Your task to perform on an android device: turn on priority inbox in the gmail app Image 0: 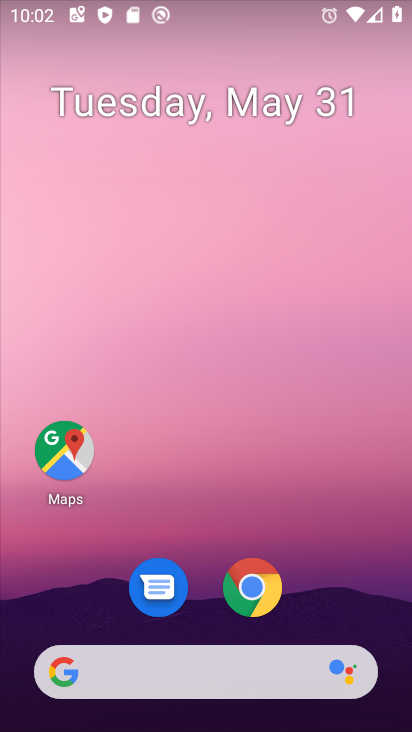
Step 0: drag from (386, 627) to (384, 266)
Your task to perform on an android device: turn on priority inbox in the gmail app Image 1: 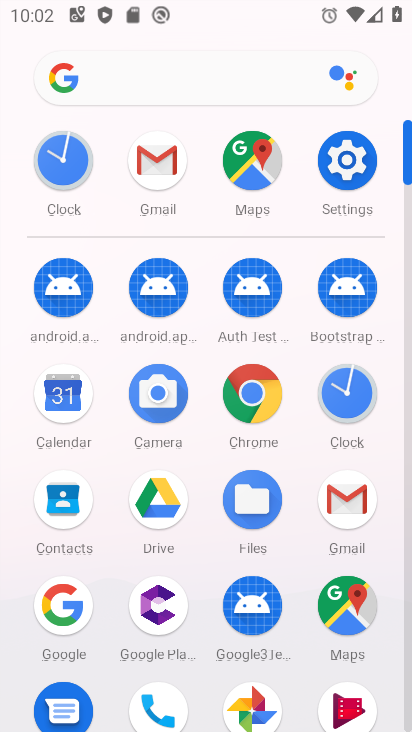
Step 1: click (352, 509)
Your task to perform on an android device: turn on priority inbox in the gmail app Image 2: 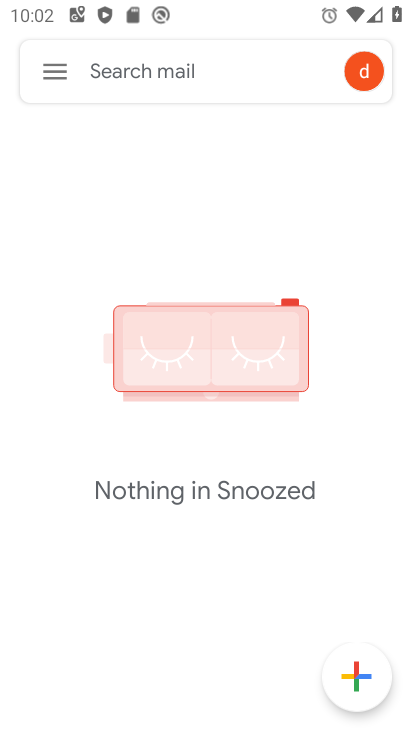
Step 2: click (61, 76)
Your task to perform on an android device: turn on priority inbox in the gmail app Image 3: 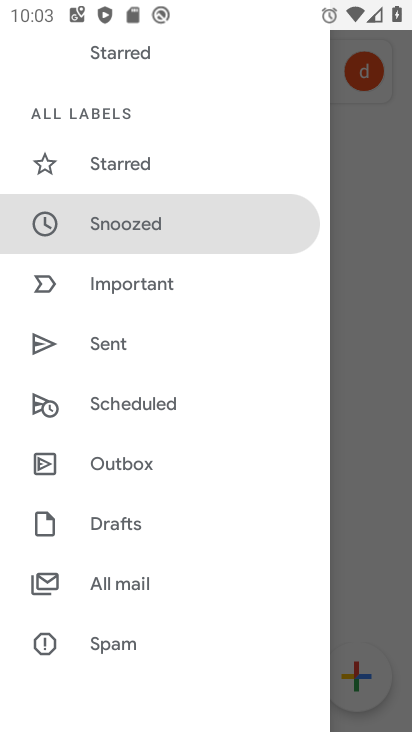
Step 3: drag from (238, 498) to (252, 438)
Your task to perform on an android device: turn on priority inbox in the gmail app Image 4: 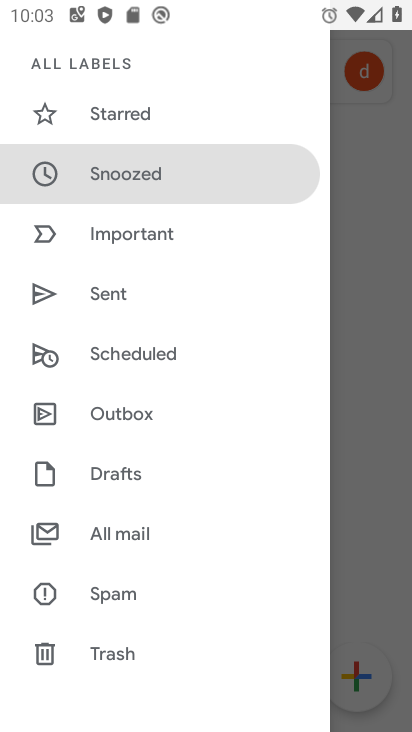
Step 4: drag from (250, 512) to (264, 443)
Your task to perform on an android device: turn on priority inbox in the gmail app Image 5: 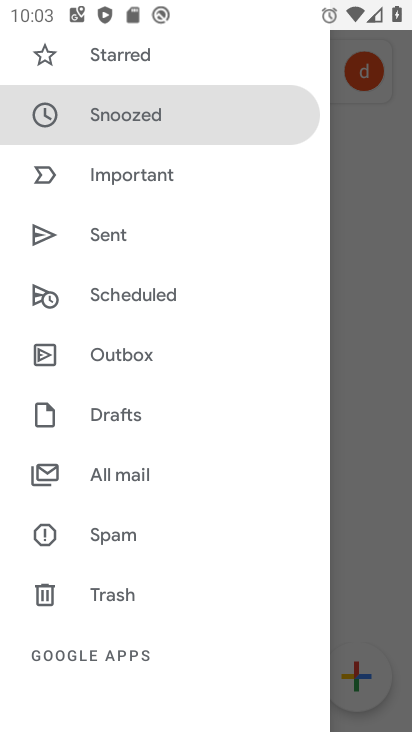
Step 5: drag from (247, 523) to (240, 446)
Your task to perform on an android device: turn on priority inbox in the gmail app Image 6: 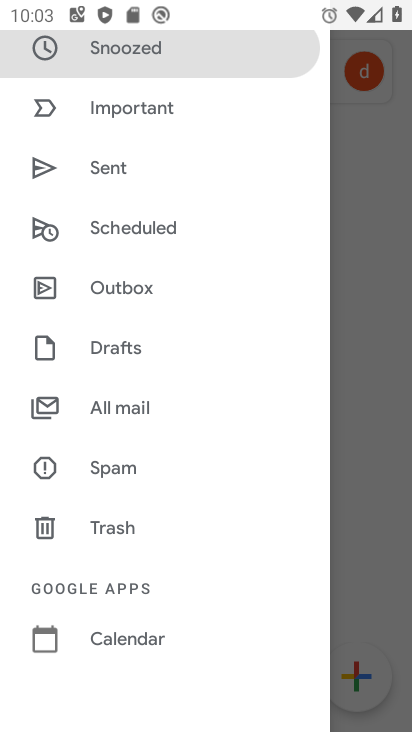
Step 6: drag from (222, 526) to (234, 445)
Your task to perform on an android device: turn on priority inbox in the gmail app Image 7: 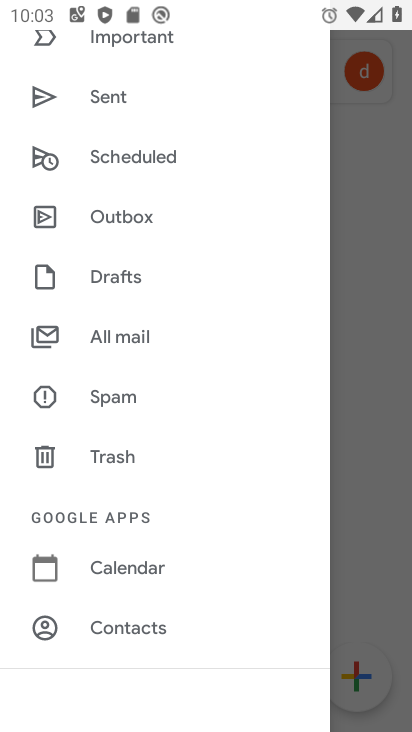
Step 7: drag from (221, 539) to (229, 425)
Your task to perform on an android device: turn on priority inbox in the gmail app Image 8: 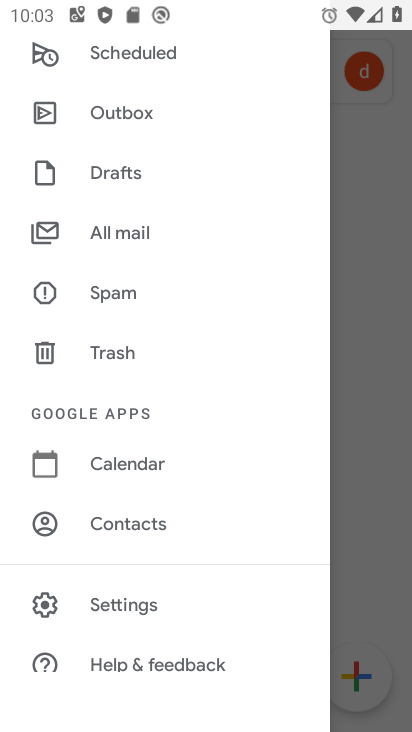
Step 8: drag from (243, 559) to (254, 419)
Your task to perform on an android device: turn on priority inbox in the gmail app Image 9: 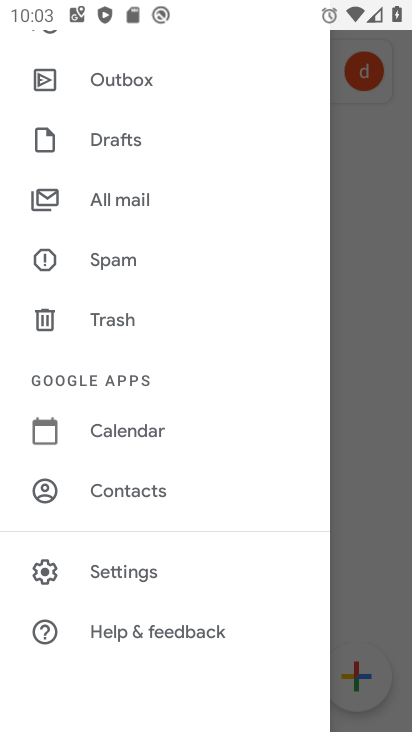
Step 9: click (161, 572)
Your task to perform on an android device: turn on priority inbox in the gmail app Image 10: 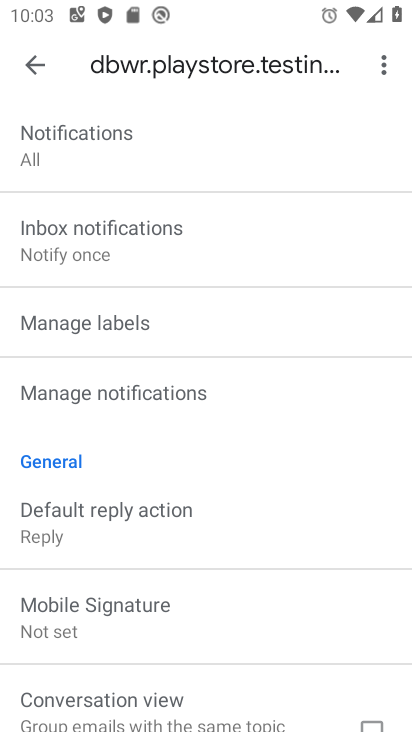
Step 10: drag from (274, 258) to (284, 426)
Your task to perform on an android device: turn on priority inbox in the gmail app Image 11: 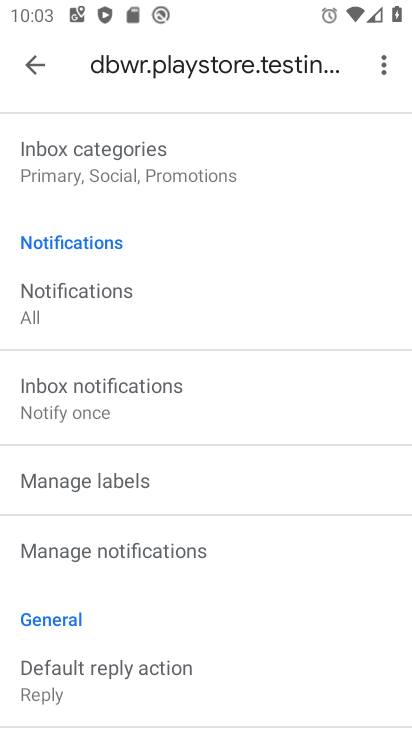
Step 11: drag from (312, 243) to (310, 402)
Your task to perform on an android device: turn on priority inbox in the gmail app Image 12: 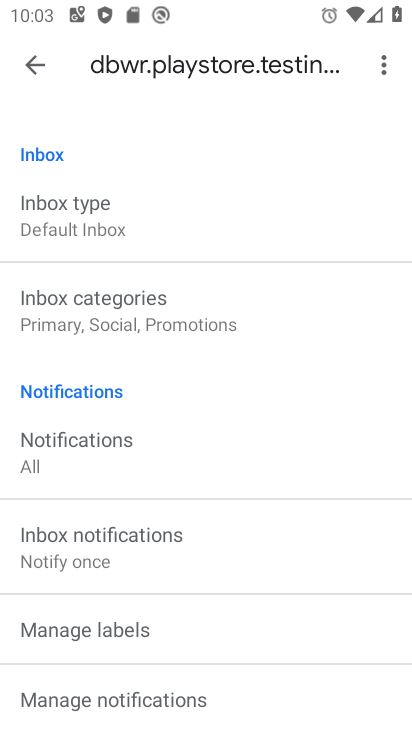
Step 12: drag from (282, 217) to (279, 350)
Your task to perform on an android device: turn on priority inbox in the gmail app Image 13: 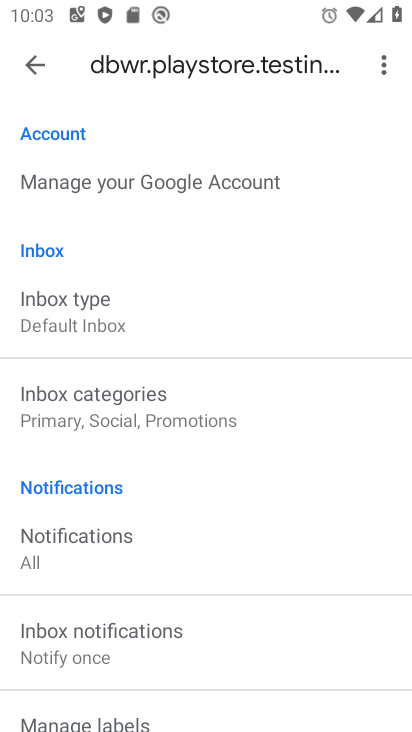
Step 13: drag from (310, 226) to (289, 374)
Your task to perform on an android device: turn on priority inbox in the gmail app Image 14: 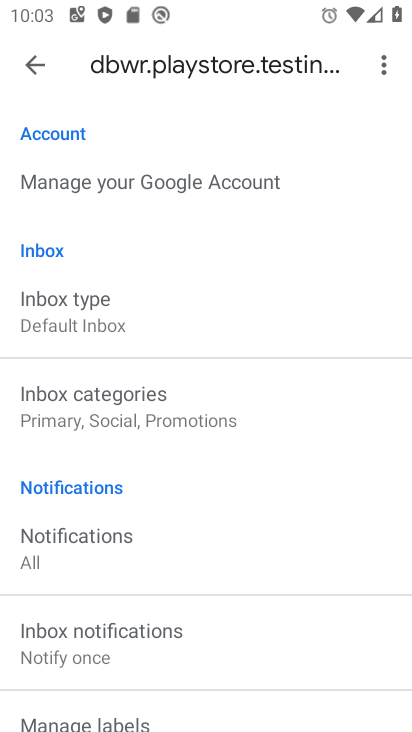
Step 14: click (127, 340)
Your task to perform on an android device: turn on priority inbox in the gmail app Image 15: 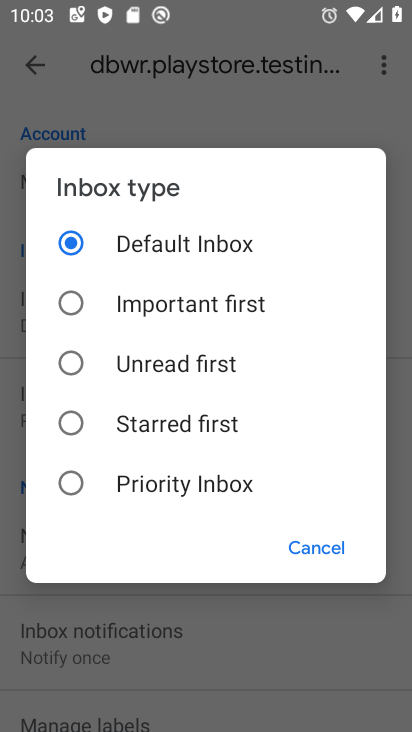
Step 15: click (194, 474)
Your task to perform on an android device: turn on priority inbox in the gmail app Image 16: 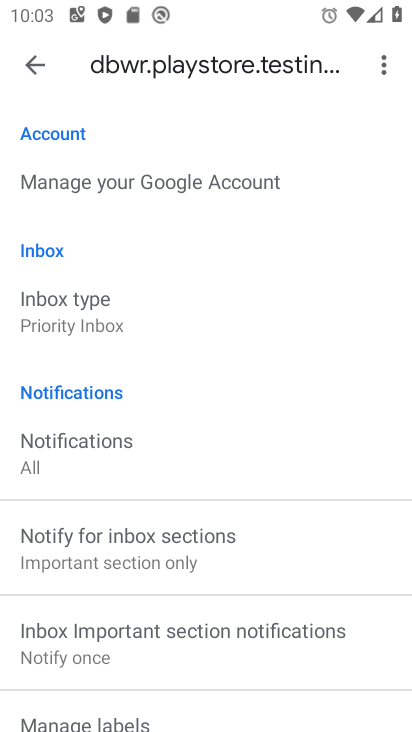
Step 16: task complete